Your task to perform on an android device: turn off location history Image 0: 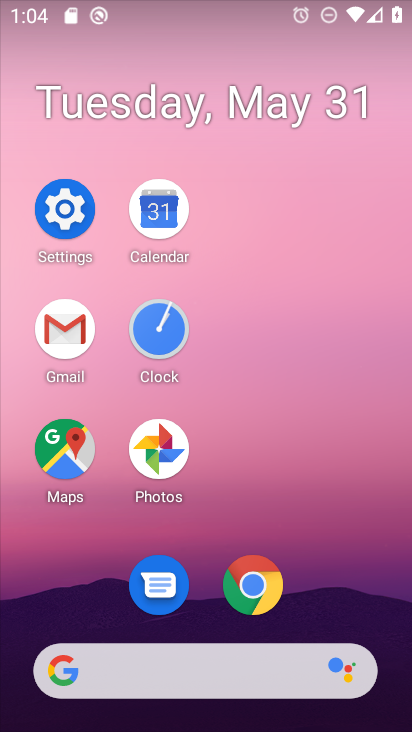
Step 0: click (72, 205)
Your task to perform on an android device: turn off location history Image 1: 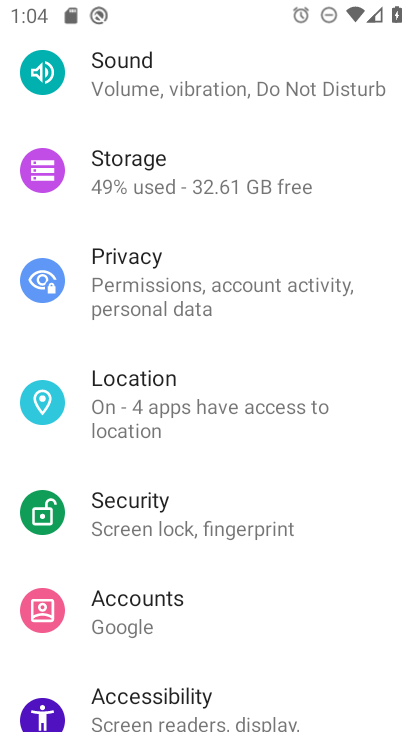
Step 1: click (246, 424)
Your task to perform on an android device: turn off location history Image 2: 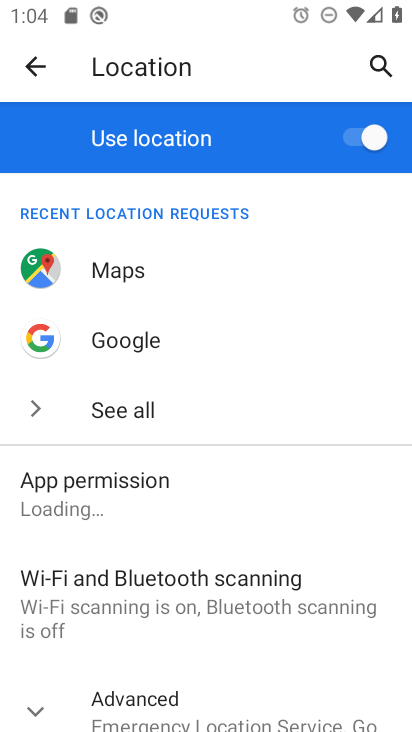
Step 2: drag from (225, 564) to (247, 250)
Your task to perform on an android device: turn off location history Image 3: 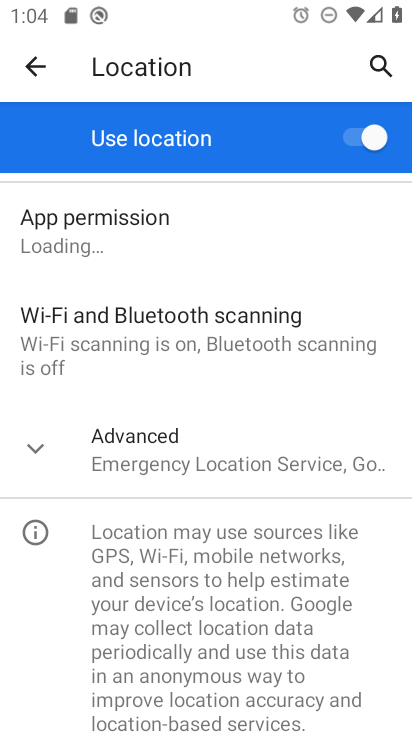
Step 3: click (215, 474)
Your task to perform on an android device: turn off location history Image 4: 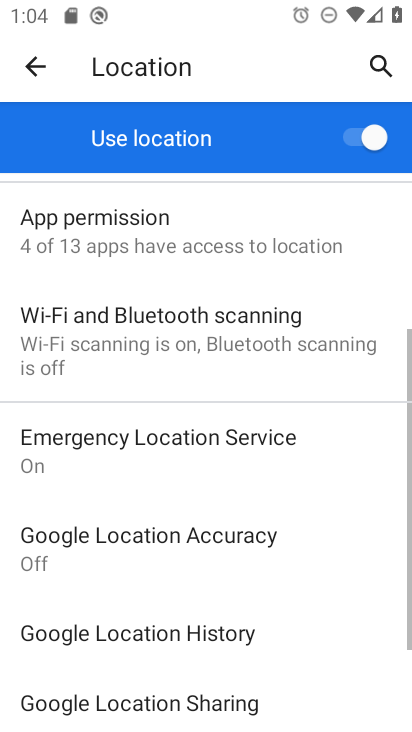
Step 4: drag from (196, 582) to (226, 297)
Your task to perform on an android device: turn off location history Image 5: 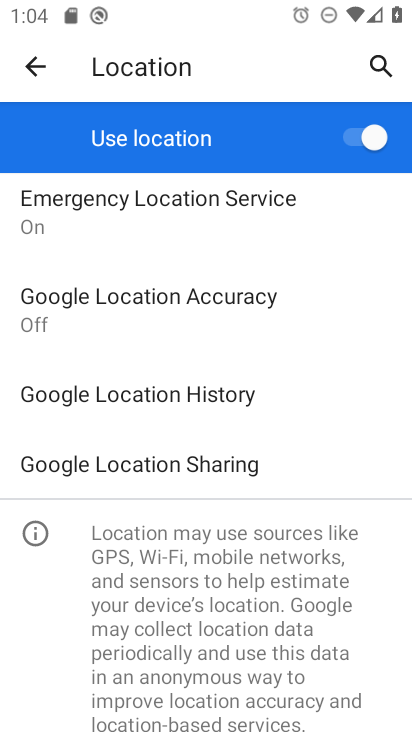
Step 5: click (249, 389)
Your task to perform on an android device: turn off location history Image 6: 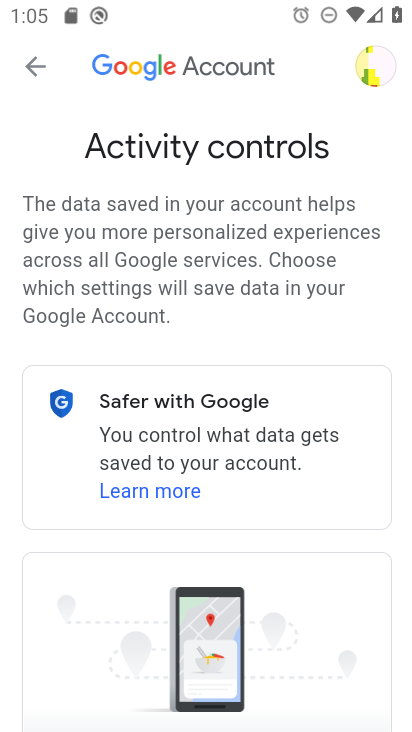
Step 6: drag from (302, 562) to (343, 220)
Your task to perform on an android device: turn off location history Image 7: 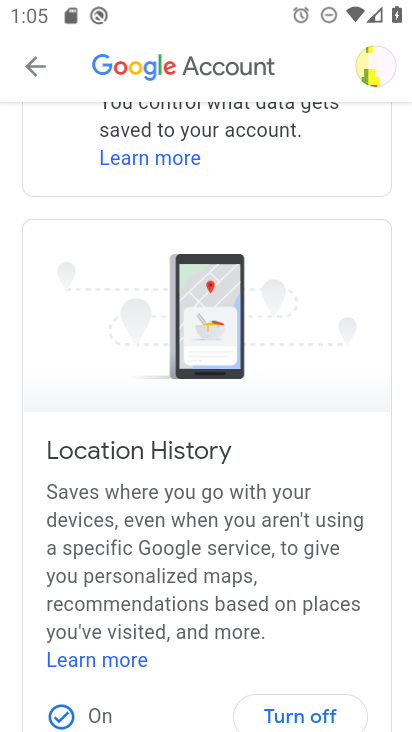
Step 7: drag from (359, 586) to (384, 207)
Your task to perform on an android device: turn off location history Image 8: 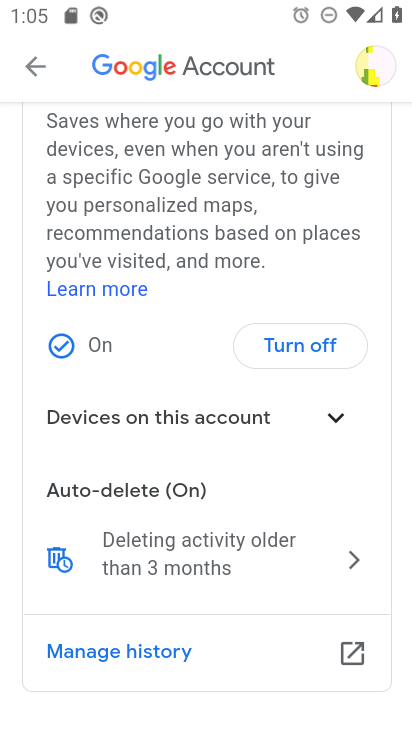
Step 8: click (316, 345)
Your task to perform on an android device: turn off location history Image 9: 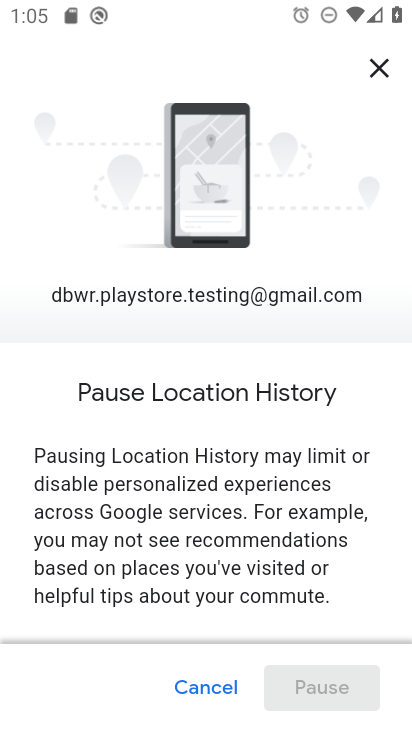
Step 9: drag from (279, 591) to (280, 166)
Your task to perform on an android device: turn off location history Image 10: 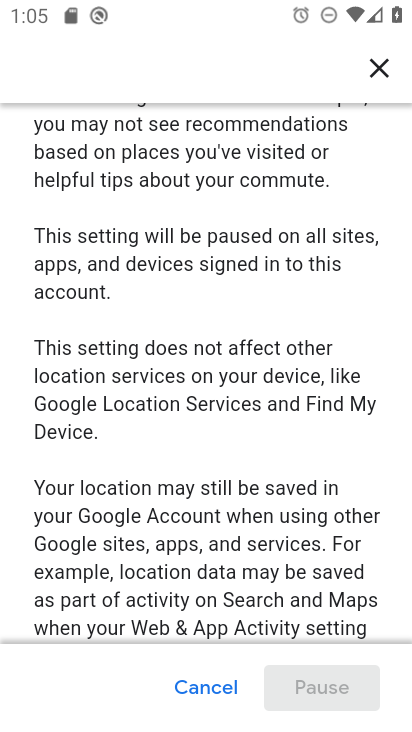
Step 10: drag from (287, 512) to (278, 193)
Your task to perform on an android device: turn off location history Image 11: 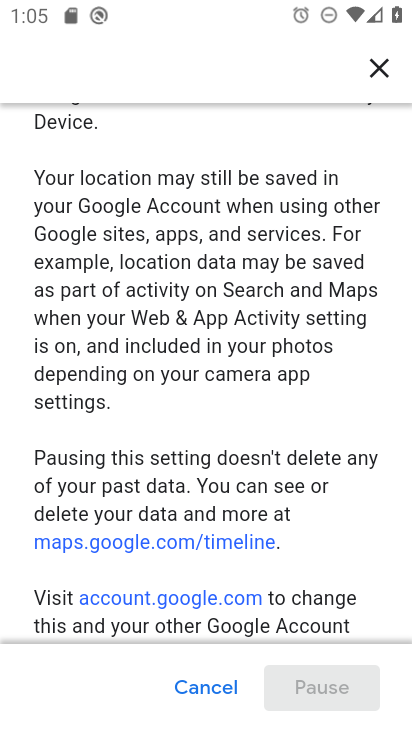
Step 11: drag from (304, 607) to (318, 213)
Your task to perform on an android device: turn off location history Image 12: 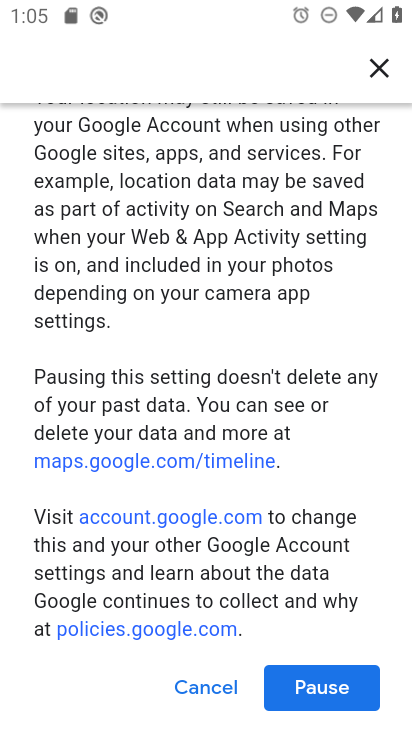
Step 12: click (325, 687)
Your task to perform on an android device: turn off location history Image 13: 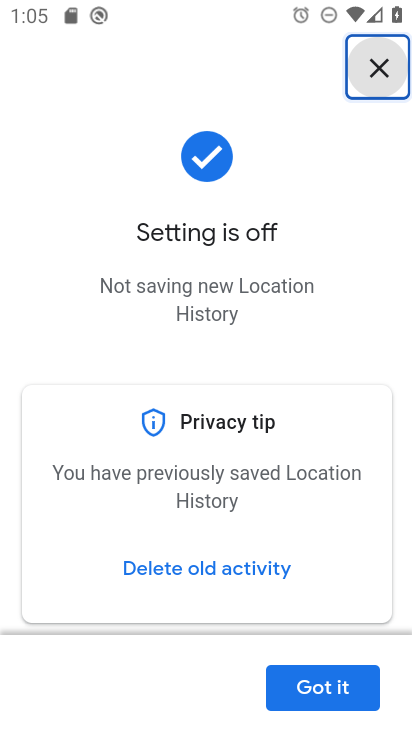
Step 13: click (352, 682)
Your task to perform on an android device: turn off location history Image 14: 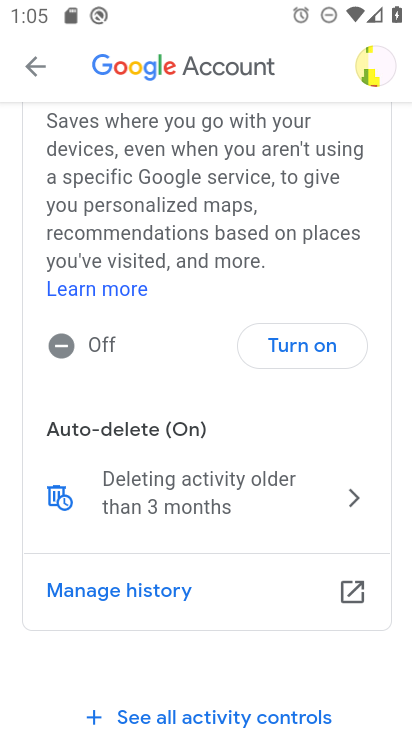
Step 14: task complete